Your task to perform on an android device: Open Yahoo.com Image 0: 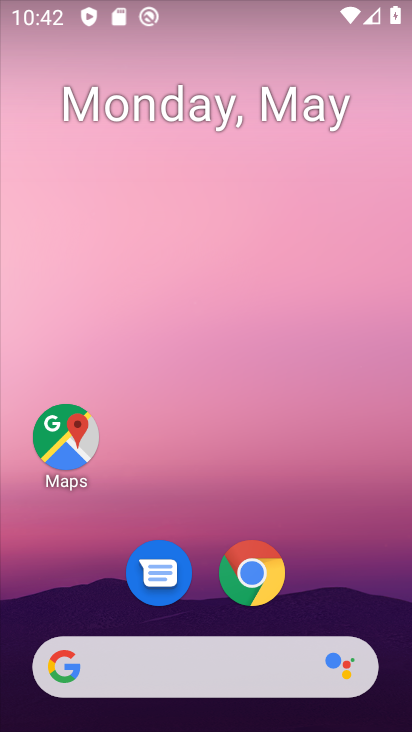
Step 0: click (254, 576)
Your task to perform on an android device: Open Yahoo.com Image 1: 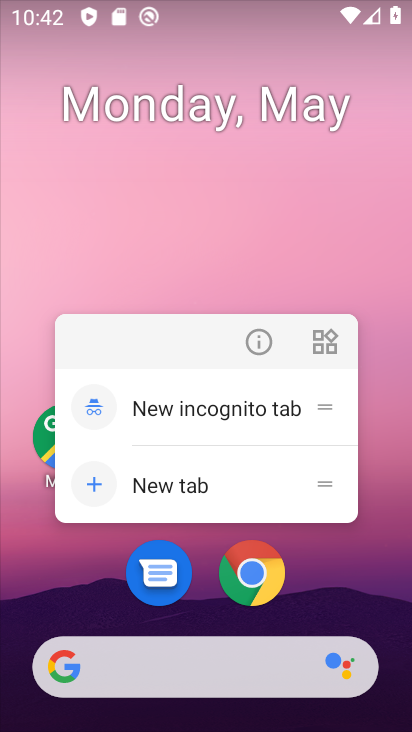
Step 1: click (254, 576)
Your task to perform on an android device: Open Yahoo.com Image 2: 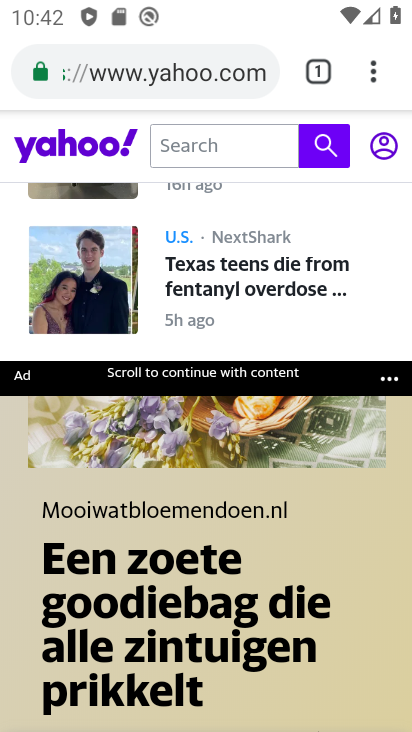
Step 2: task complete